Your task to perform on an android device: Play the last video I watched on Youtube Image 0: 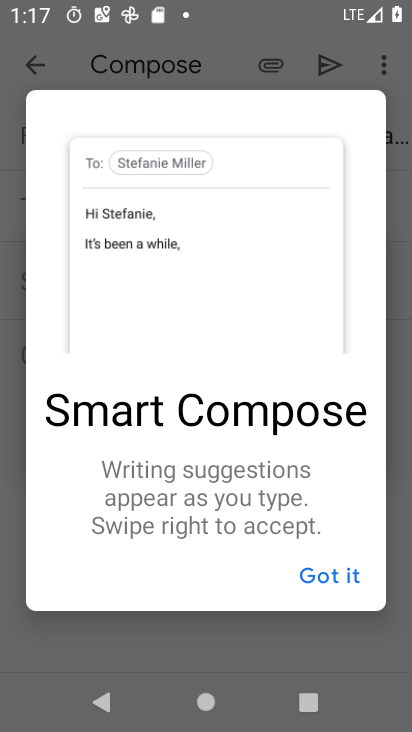
Step 0: press home button
Your task to perform on an android device: Play the last video I watched on Youtube Image 1: 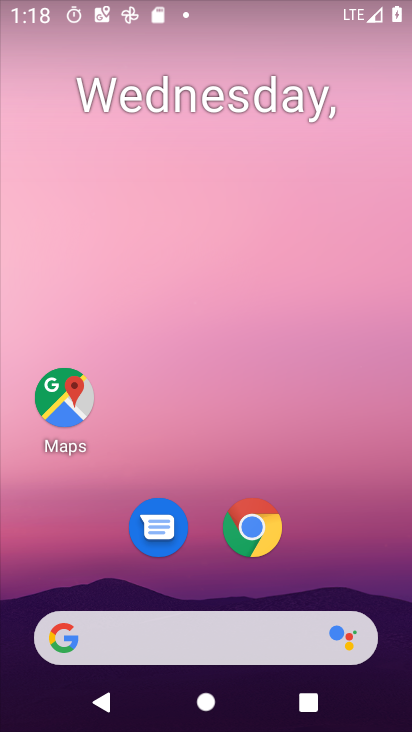
Step 1: drag from (162, 660) to (172, 224)
Your task to perform on an android device: Play the last video I watched on Youtube Image 2: 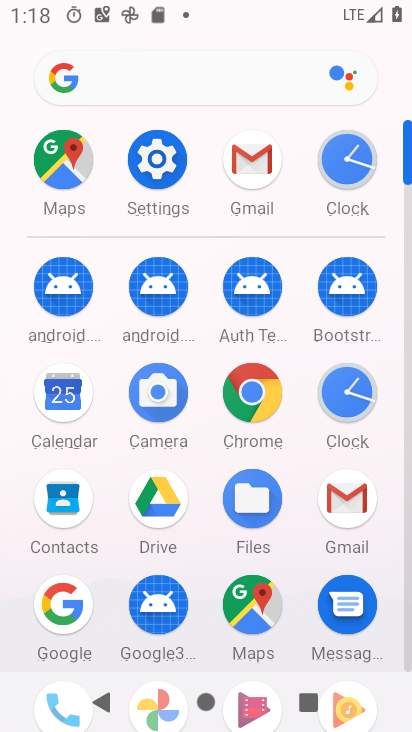
Step 2: drag from (204, 547) to (204, 198)
Your task to perform on an android device: Play the last video I watched on Youtube Image 3: 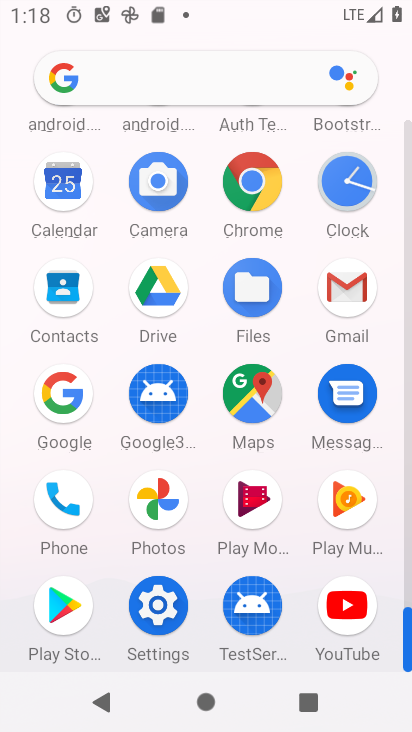
Step 3: click (352, 612)
Your task to perform on an android device: Play the last video I watched on Youtube Image 4: 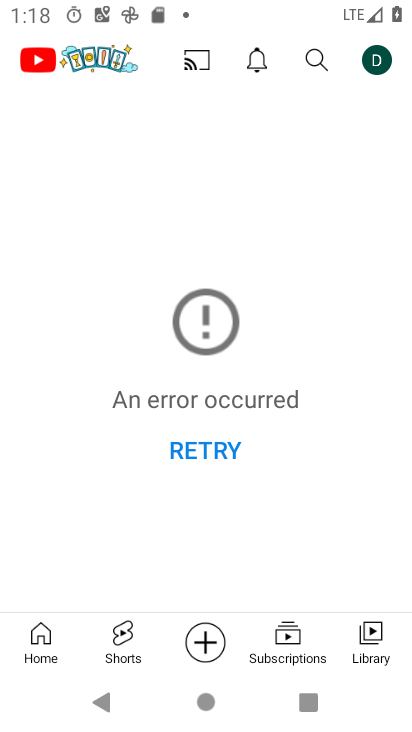
Step 4: click (386, 625)
Your task to perform on an android device: Play the last video I watched on Youtube Image 5: 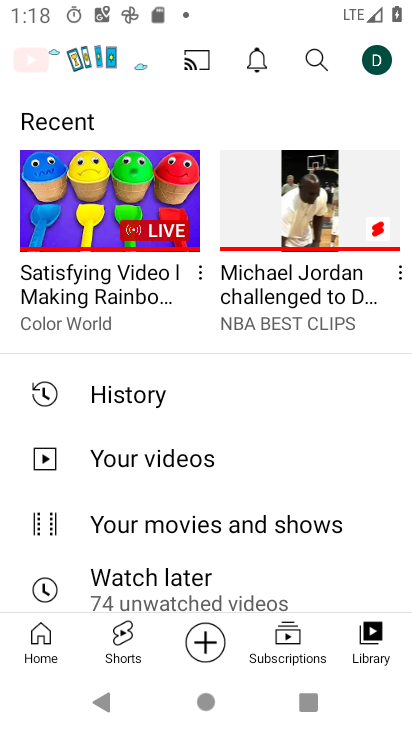
Step 5: click (132, 236)
Your task to perform on an android device: Play the last video I watched on Youtube Image 6: 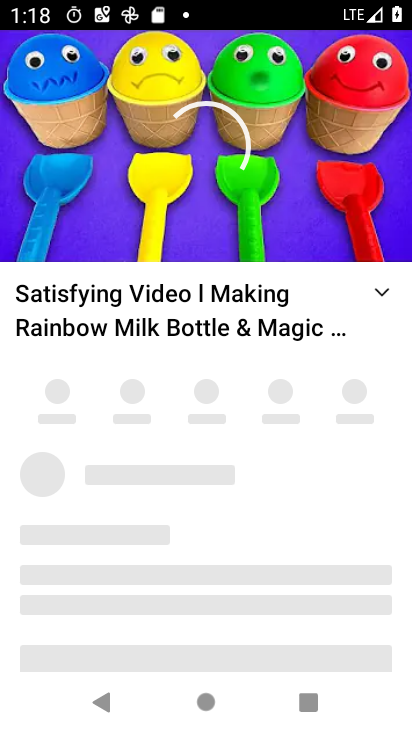
Step 6: task complete